Your task to perform on an android device: turn on showing notifications on the lock screen Image 0: 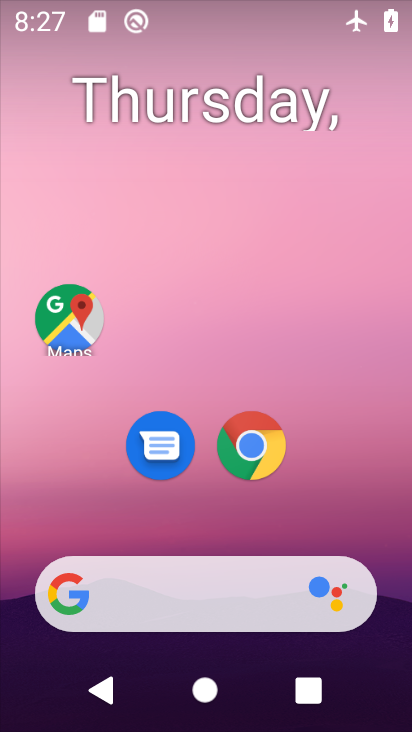
Step 0: drag from (308, 508) to (318, 54)
Your task to perform on an android device: turn on showing notifications on the lock screen Image 1: 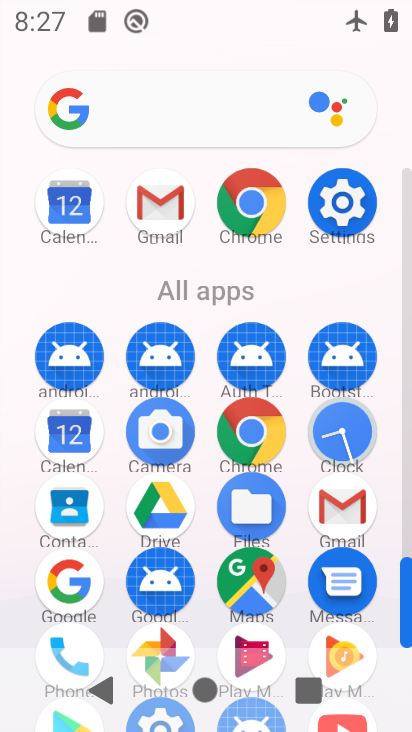
Step 1: click (349, 207)
Your task to perform on an android device: turn on showing notifications on the lock screen Image 2: 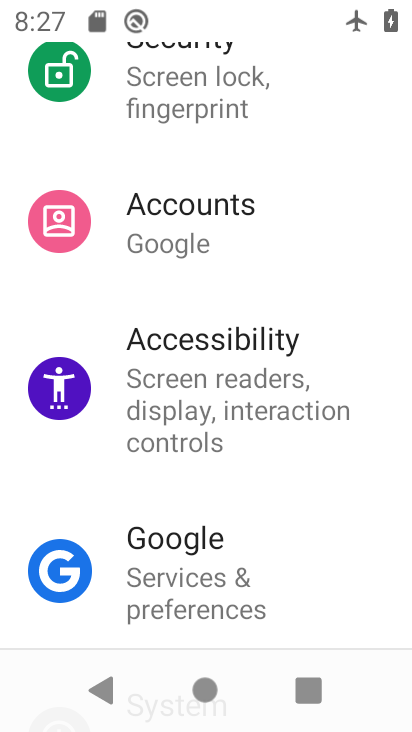
Step 2: drag from (273, 168) to (273, 542)
Your task to perform on an android device: turn on showing notifications on the lock screen Image 3: 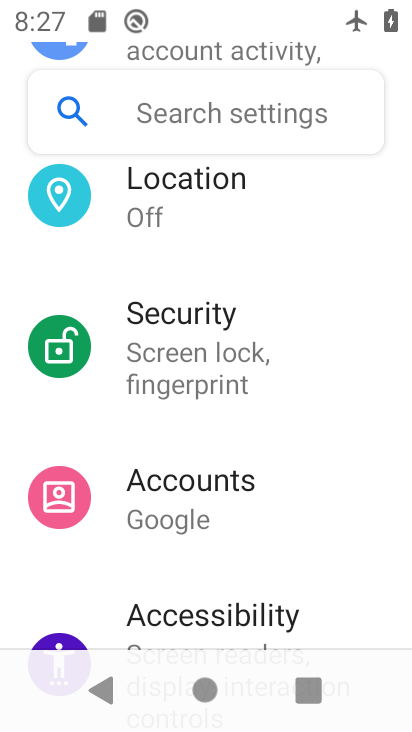
Step 3: drag from (299, 241) to (264, 616)
Your task to perform on an android device: turn on showing notifications on the lock screen Image 4: 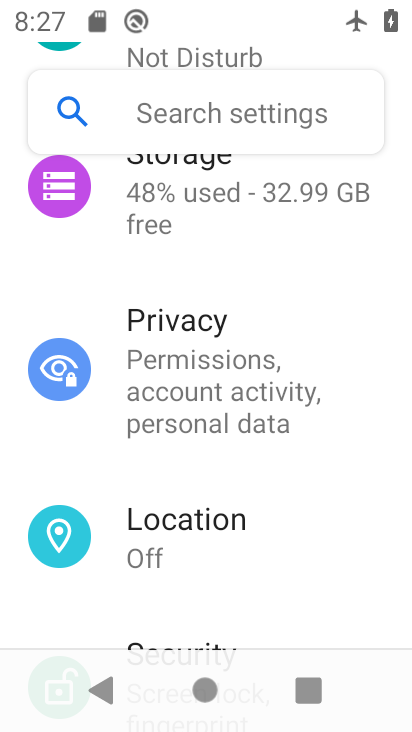
Step 4: drag from (275, 249) to (250, 587)
Your task to perform on an android device: turn on showing notifications on the lock screen Image 5: 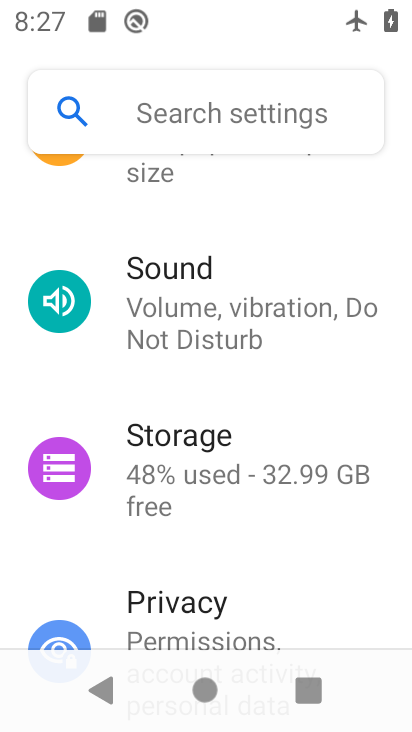
Step 5: drag from (292, 209) to (263, 580)
Your task to perform on an android device: turn on showing notifications on the lock screen Image 6: 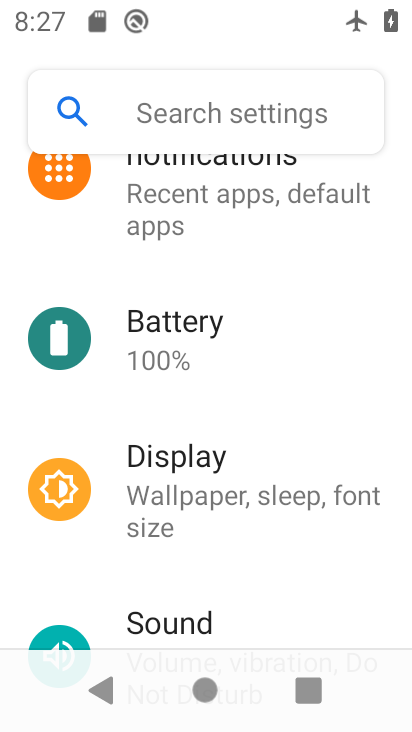
Step 6: drag from (344, 206) to (309, 510)
Your task to perform on an android device: turn on showing notifications on the lock screen Image 7: 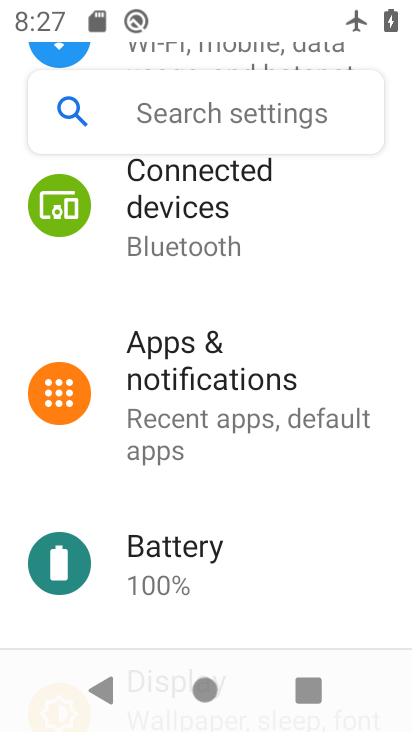
Step 7: click (217, 434)
Your task to perform on an android device: turn on showing notifications on the lock screen Image 8: 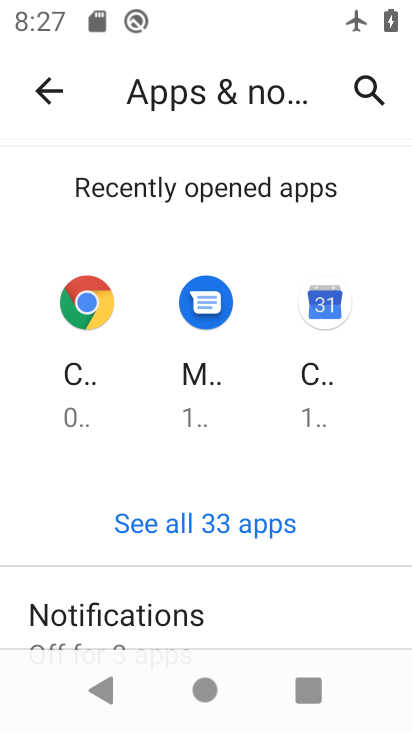
Step 8: drag from (155, 613) to (190, 266)
Your task to perform on an android device: turn on showing notifications on the lock screen Image 9: 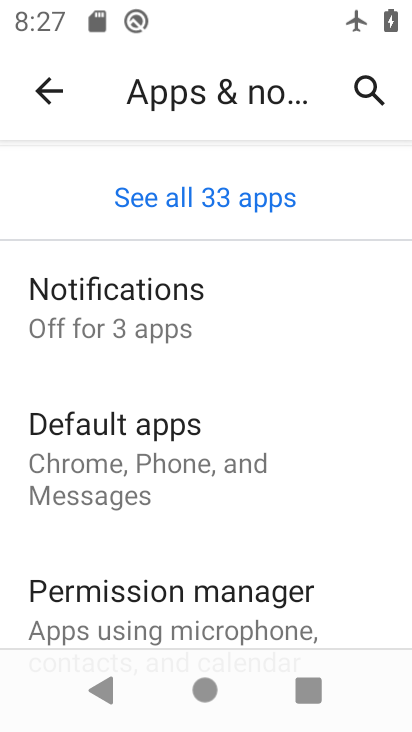
Step 9: click (97, 312)
Your task to perform on an android device: turn on showing notifications on the lock screen Image 10: 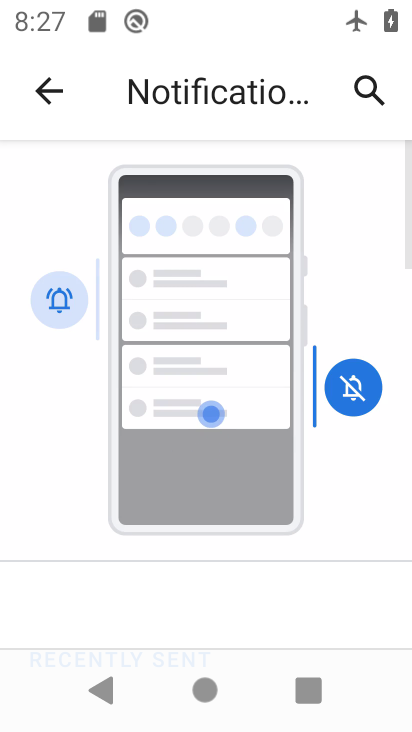
Step 10: drag from (215, 556) to (223, 273)
Your task to perform on an android device: turn on showing notifications on the lock screen Image 11: 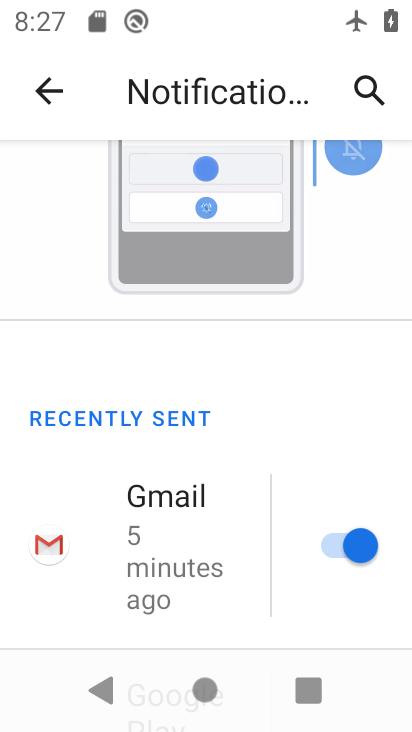
Step 11: drag from (205, 611) to (220, 329)
Your task to perform on an android device: turn on showing notifications on the lock screen Image 12: 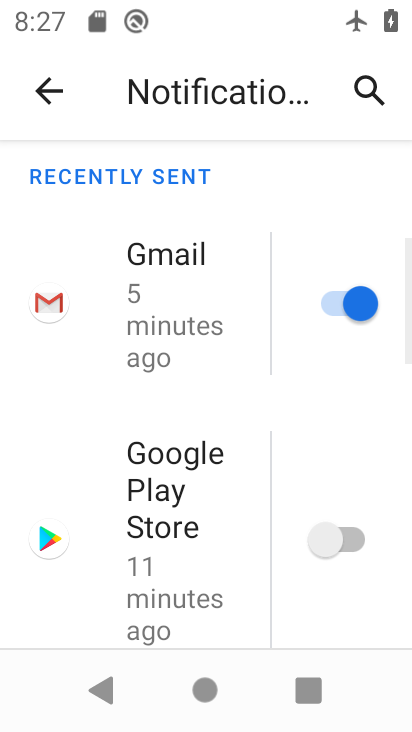
Step 12: drag from (193, 586) to (171, 232)
Your task to perform on an android device: turn on showing notifications on the lock screen Image 13: 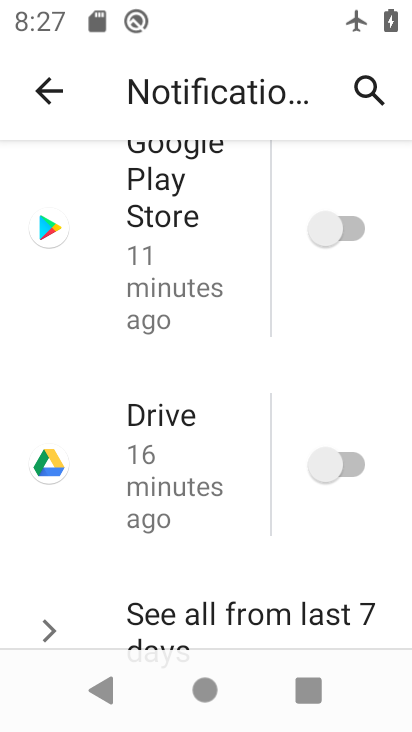
Step 13: drag from (170, 566) to (178, 207)
Your task to perform on an android device: turn on showing notifications on the lock screen Image 14: 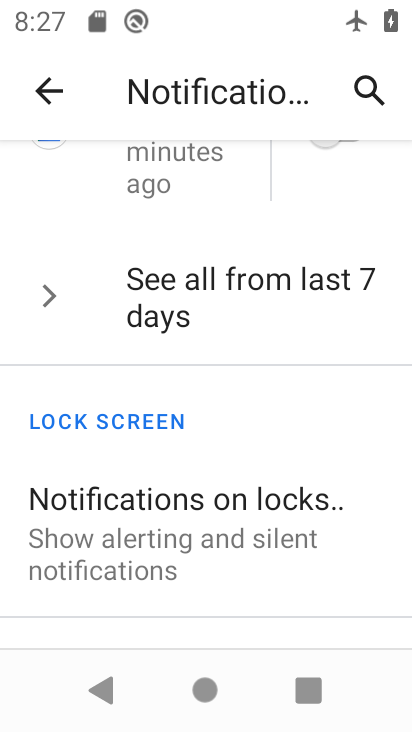
Step 14: click (108, 552)
Your task to perform on an android device: turn on showing notifications on the lock screen Image 15: 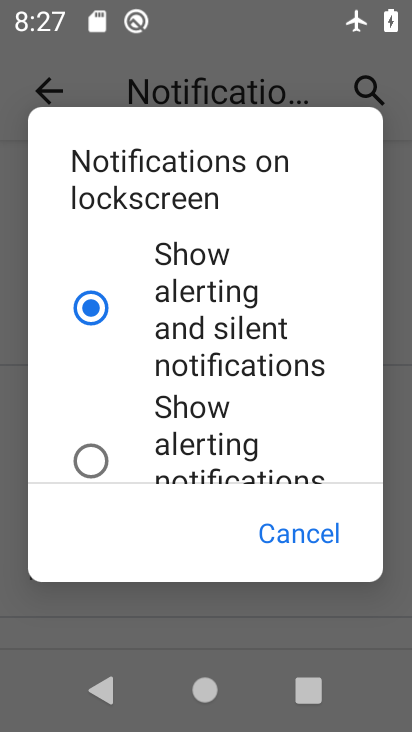
Step 15: task complete